Your task to perform on an android device: Do I have any events this weekend? Image 0: 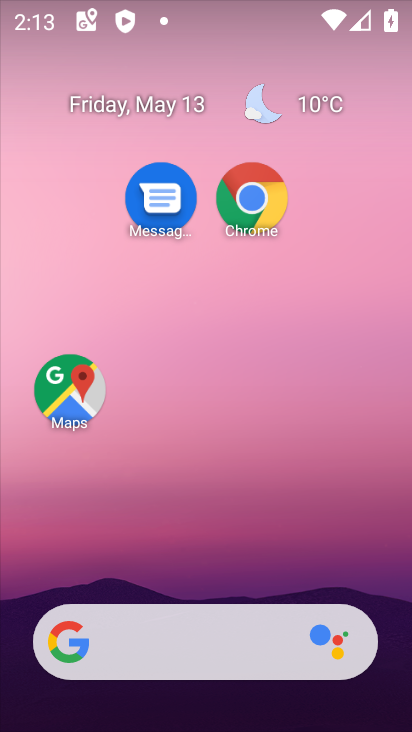
Step 0: drag from (184, 598) to (273, 29)
Your task to perform on an android device: Do I have any events this weekend? Image 1: 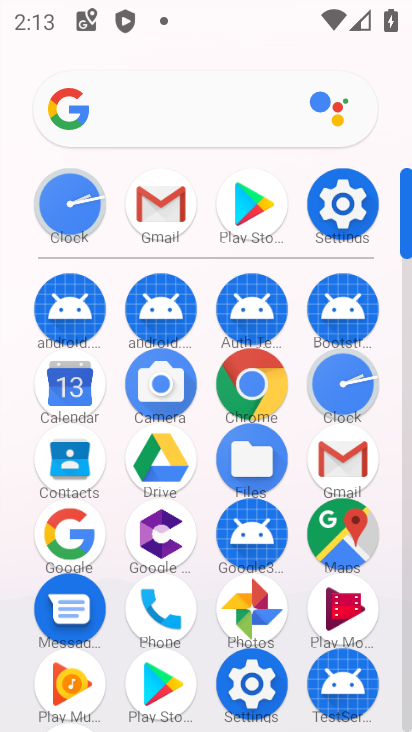
Step 1: click (84, 387)
Your task to perform on an android device: Do I have any events this weekend? Image 2: 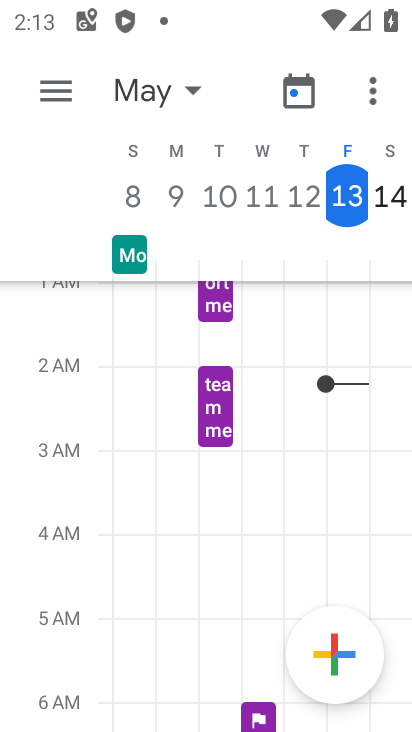
Step 2: task complete